Your task to perform on an android device: turn on bluetooth scan Image 0: 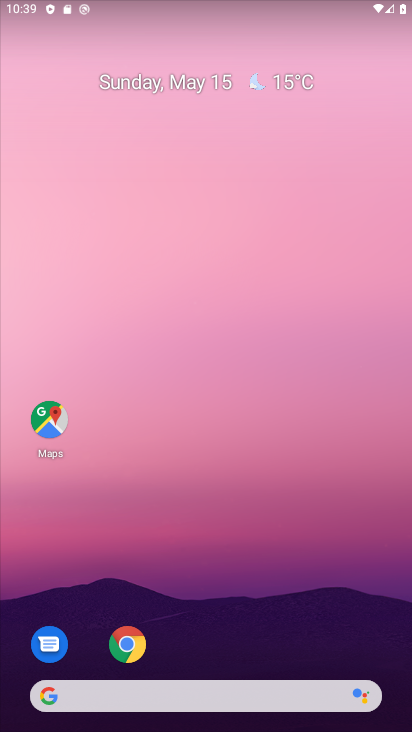
Step 0: drag from (257, 620) to (191, 23)
Your task to perform on an android device: turn on bluetooth scan Image 1: 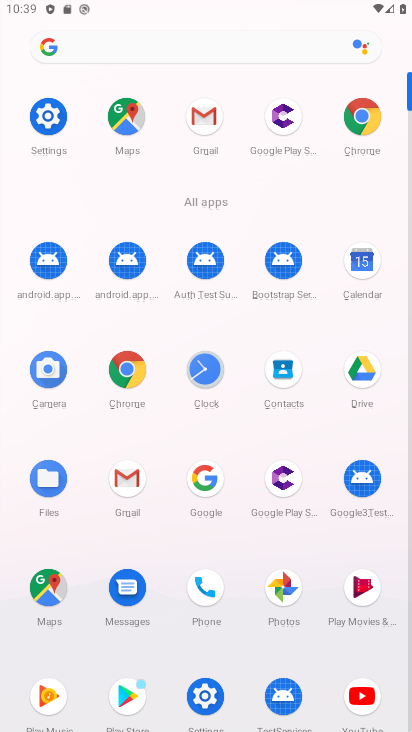
Step 1: click (50, 115)
Your task to perform on an android device: turn on bluetooth scan Image 2: 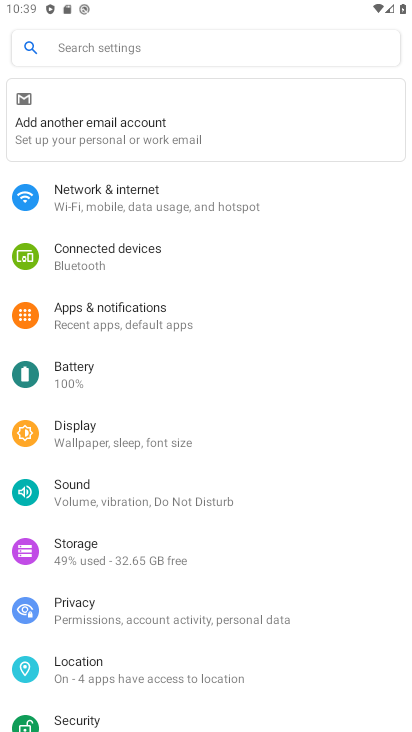
Step 2: drag from (179, 638) to (176, 176)
Your task to perform on an android device: turn on bluetooth scan Image 3: 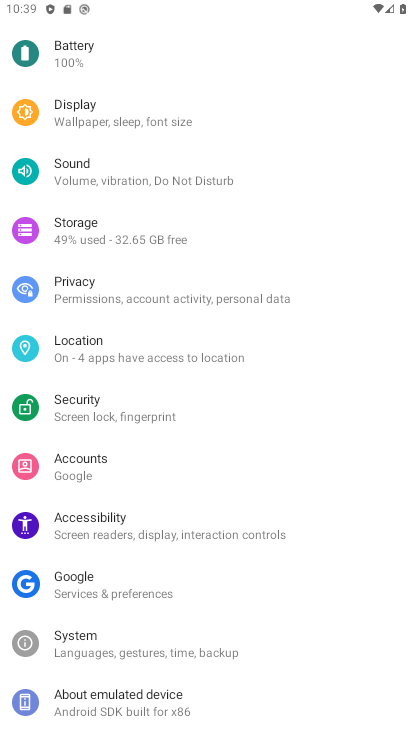
Step 3: click (125, 356)
Your task to perform on an android device: turn on bluetooth scan Image 4: 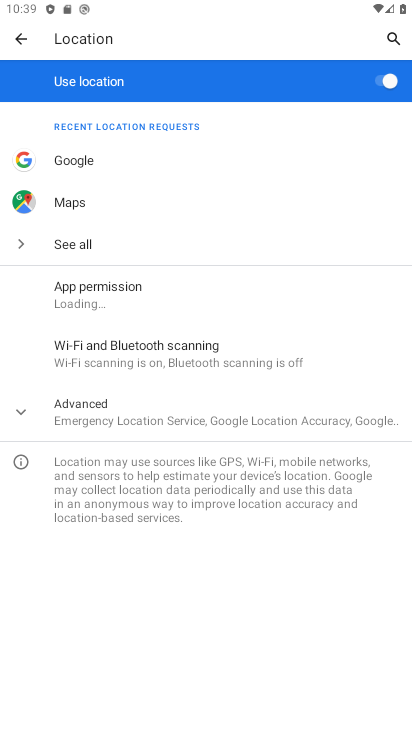
Step 4: click (212, 353)
Your task to perform on an android device: turn on bluetooth scan Image 5: 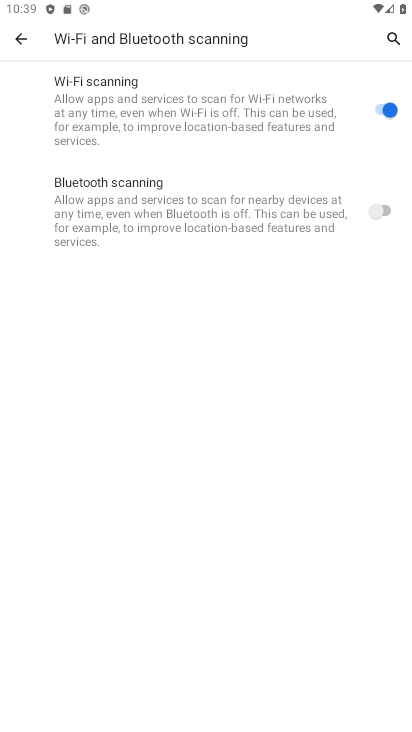
Step 5: click (382, 214)
Your task to perform on an android device: turn on bluetooth scan Image 6: 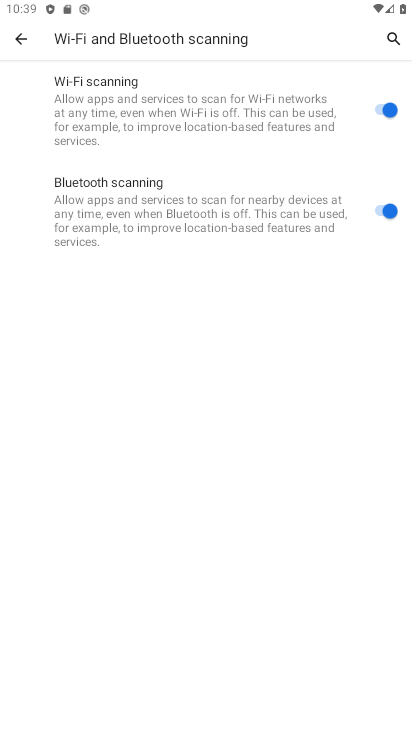
Step 6: task complete